Your task to perform on an android device: Search for "lenovo thinkpad" on costco, select the first entry, and add it to the cart. Image 0: 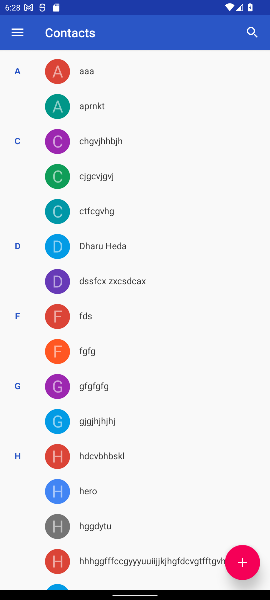
Step 0: press home button
Your task to perform on an android device: Search for "lenovo thinkpad" on costco, select the first entry, and add it to the cart. Image 1: 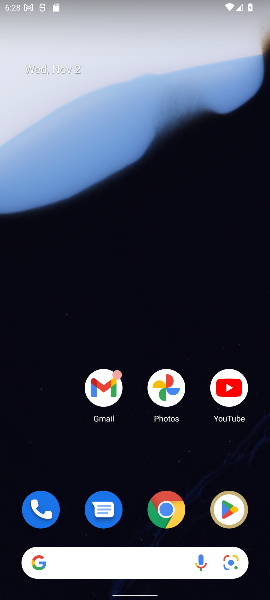
Step 1: click (124, 564)
Your task to perform on an android device: Search for "lenovo thinkpad" on costco, select the first entry, and add it to the cart. Image 2: 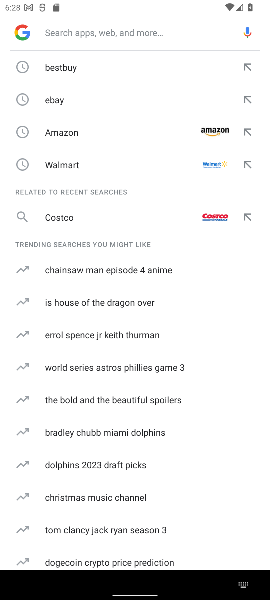
Step 2: click (48, 219)
Your task to perform on an android device: Search for "lenovo thinkpad" on costco, select the first entry, and add it to the cart. Image 3: 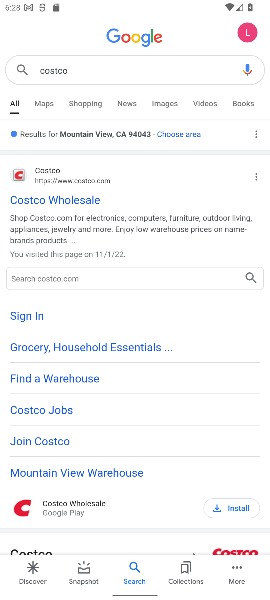
Step 3: click (31, 200)
Your task to perform on an android device: Search for "lenovo thinkpad" on costco, select the first entry, and add it to the cart. Image 4: 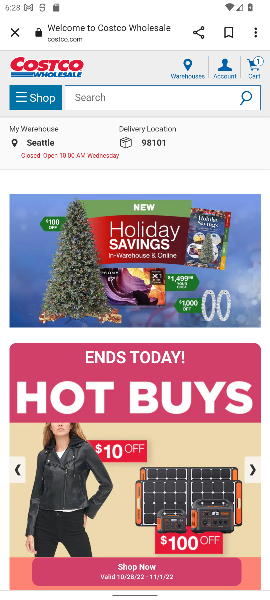
Step 4: click (100, 96)
Your task to perform on an android device: Search for "lenovo thinkpad" on costco, select the first entry, and add it to the cart. Image 5: 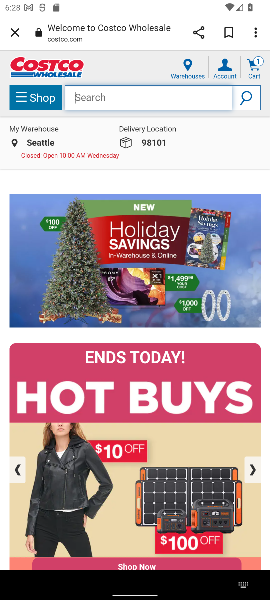
Step 5: type "lenovo thinkpad"
Your task to perform on an android device: Search for "lenovo thinkpad" on costco, select the first entry, and add it to the cart. Image 6: 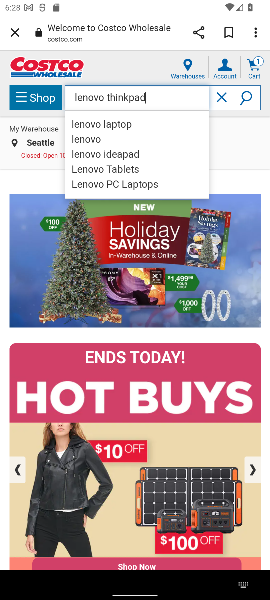
Step 6: click (246, 97)
Your task to perform on an android device: Search for "lenovo thinkpad" on costco, select the first entry, and add it to the cart. Image 7: 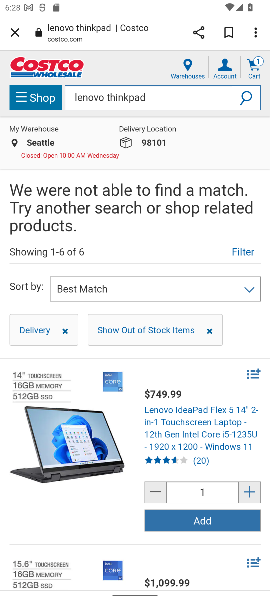
Step 7: click (199, 519)
Your task to perform on an android device: Search for "lenovo thinkpad" on costco, select the first entry, and add it to the cart. Image 8: 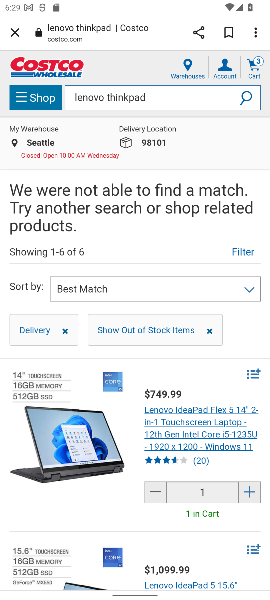
Step 8: task complete